Your task to perform on an android device: open sync settings in chrome Image 0: 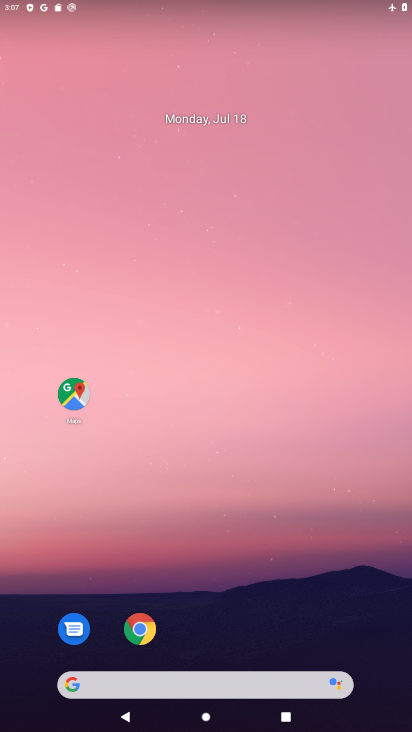
Step 0: click (152, 634)
Your task to perform on an android device: open sync settings in chrome Image 1: 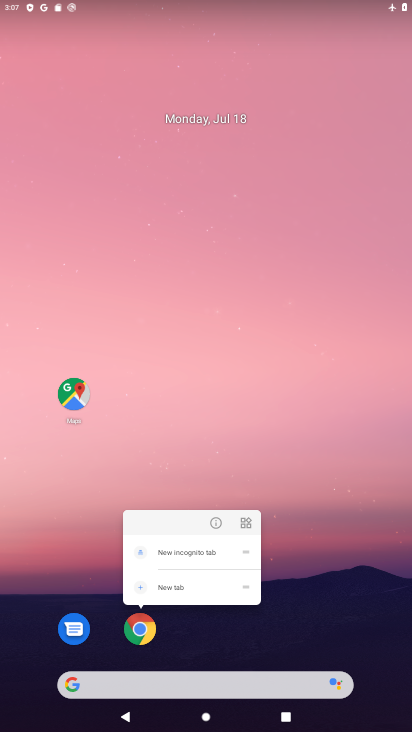
Step 1: click (134, 628)
Your task to perform on an android device: open sync settings in chrome Image 2: 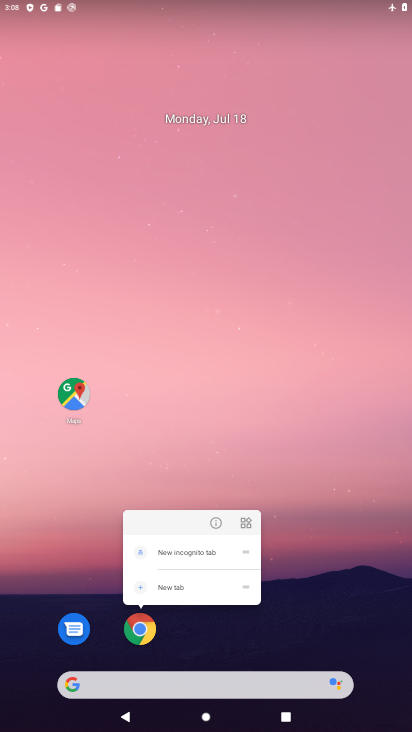
Step 2: click (145, 631)
Your task to perform on an android device: open sync settings in chrome Image 3: 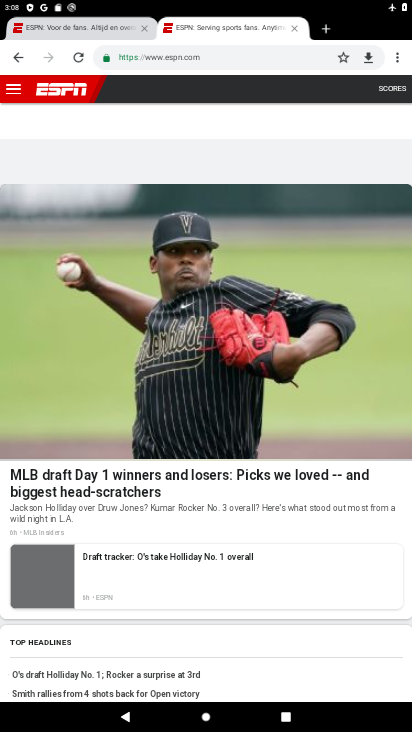
Step 3: click (391, 59)
Your task to perform on an android device: open sync settings in chrome Image 4: 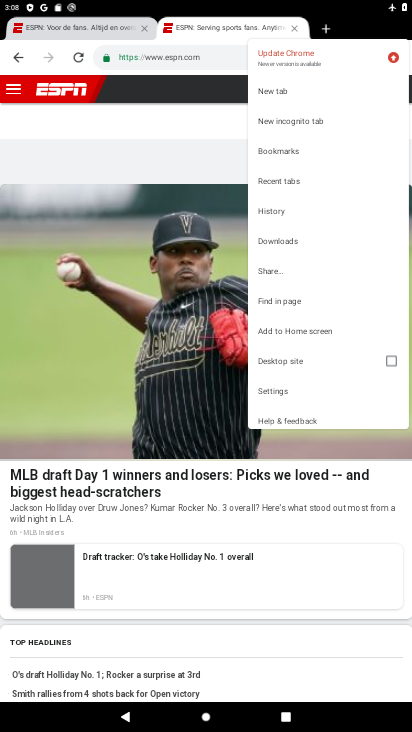
Step 4: click (248, 396)
Your task to perform on an android device: open sync settings in chrome Image 5: 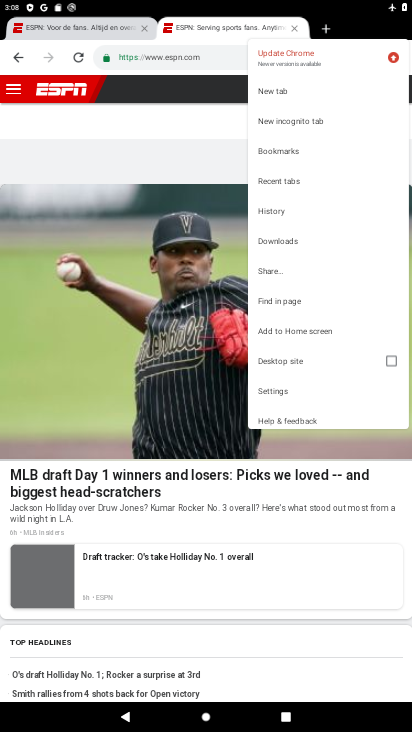
Step 5: click (275, 396)
Your task to perform on an android device: open sync settings in chrome Image 6: 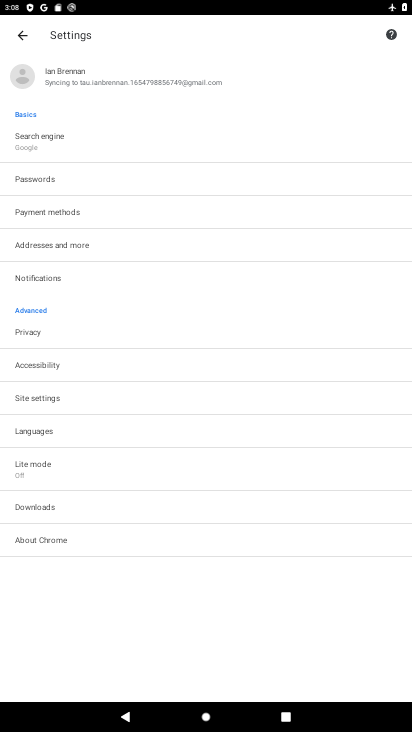
Step 6: click (66, 84)
Your task to perform on an android device: open sync settings in chrome Image 7: 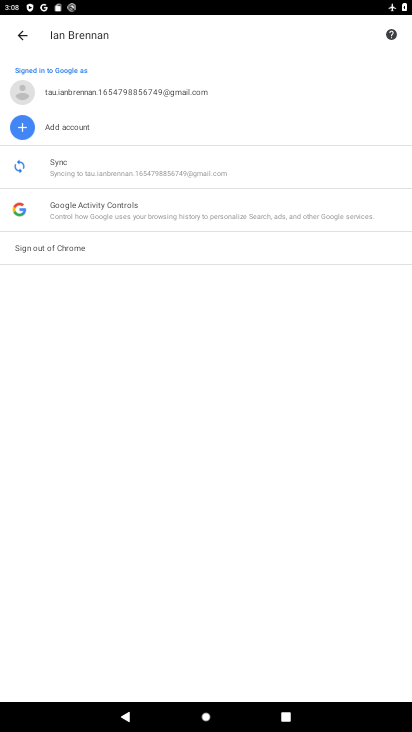
Step 7: click (92, 163)
Your task to perform on an android device: open sync settings in chrome Image 8: 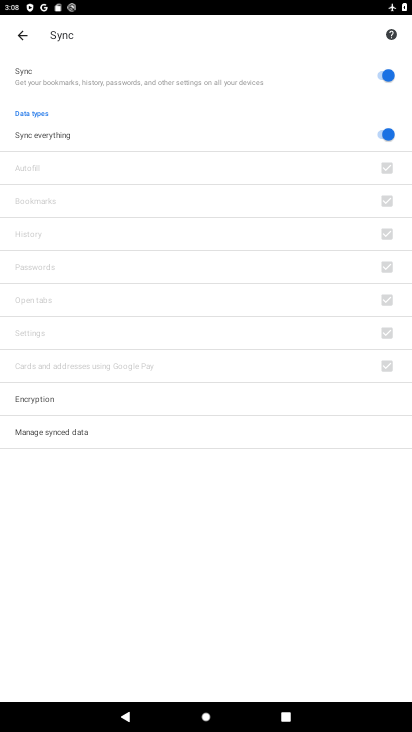
Step 8: task complete